Your task to perform on an android device: Open sound settings Image 0: 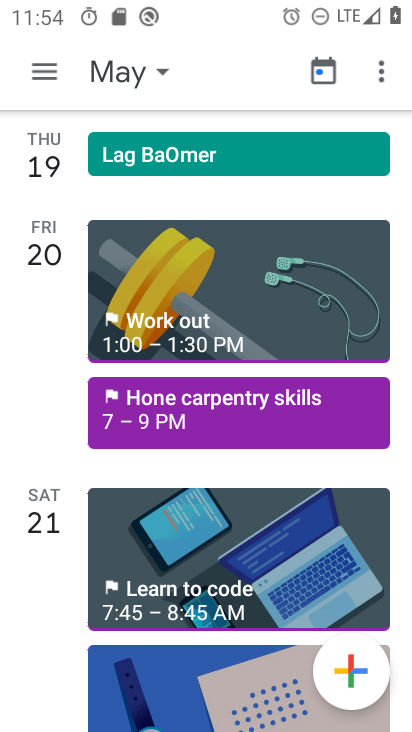
Step 0: drag from (223, 638) to (350, 453)
Your task to perform on an android device: Open sound settings Image 1: 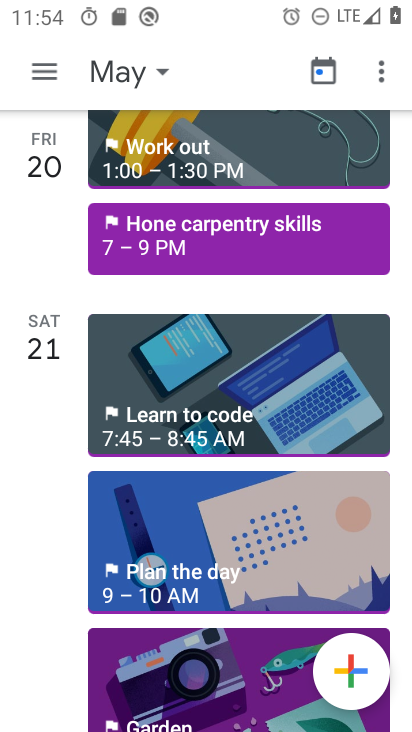
Step 1: press home button
Your task to perform on an android device: Open sound settings Image 2: 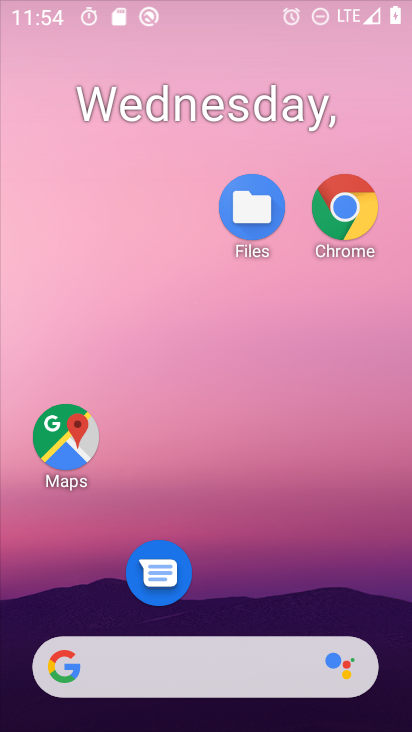
Step 2: drag from (244, 611) to (270, 202)
Your task to perform on an android device: Open sound settings Image 3: 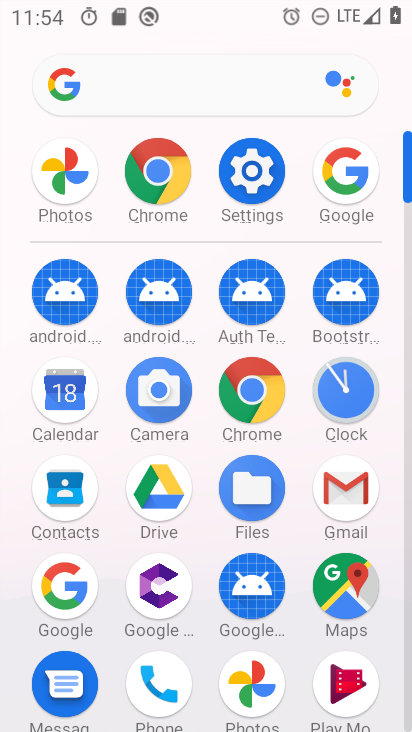
Step 3: click (266, 214)
Your task to perform on an android device: Open sound settings Image 4: 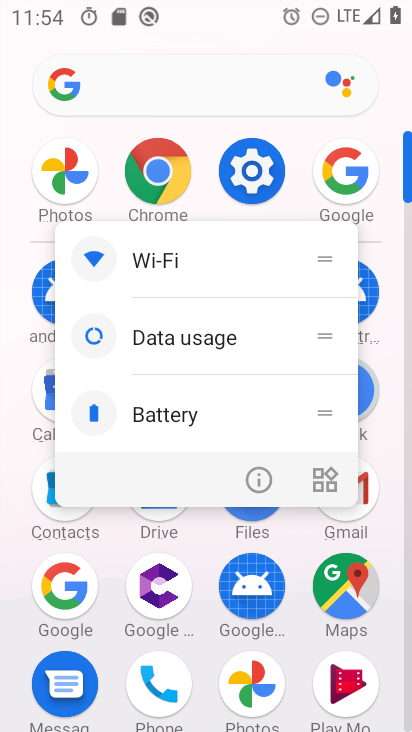
Step 4: click (268, 183)
Your task to perform on an android device: Open sound settings Image 5: 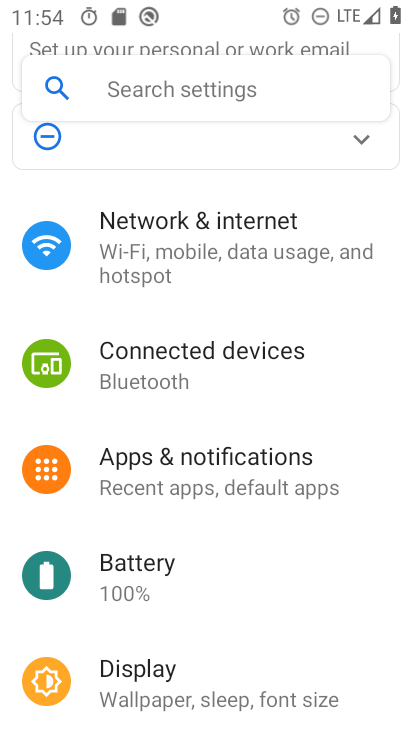
Step 5: drag from (224, 596) to (189, 342)
Your task to perform on an android device: Open sound settings Image 6: 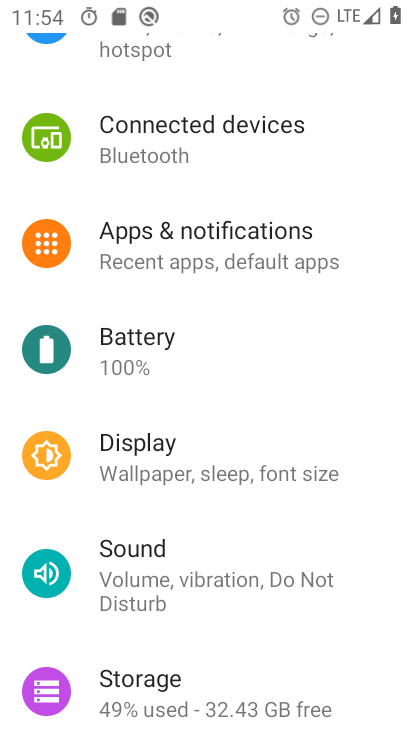
Step 6: click (217, 559)
Your task to perform on an android device: Open sound settings Image 7: 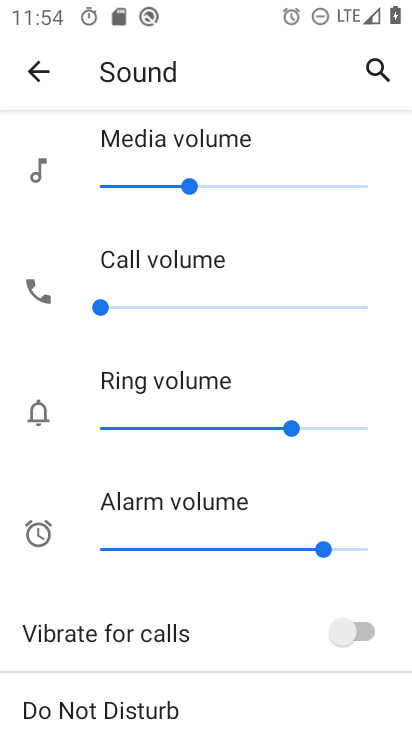
Step 7: task complete